Your task to perform on an android device: search for starred emails in the gmail app Image 0: 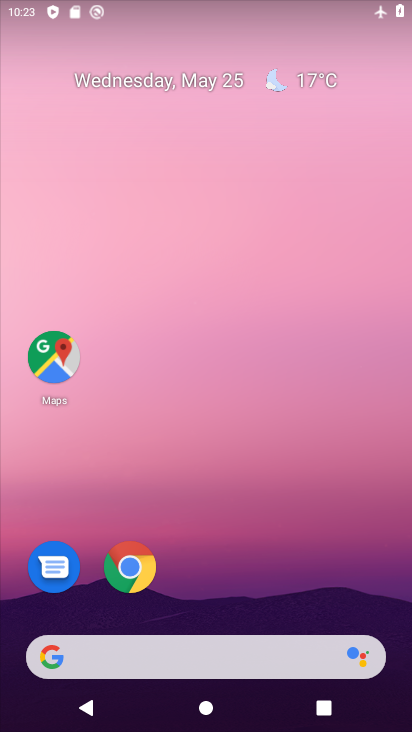
Step 0: drag from (325, 597) to (294, 42)
Your task to perform on an android device: search for starred emails in the gmail app Image 1: 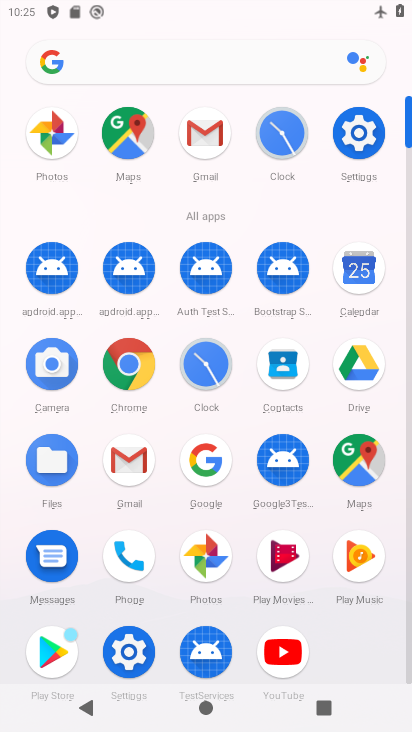
Step 1: click (141, 461)
Your task to perform on an android device: search for starred emails in the gmail app Image 2: 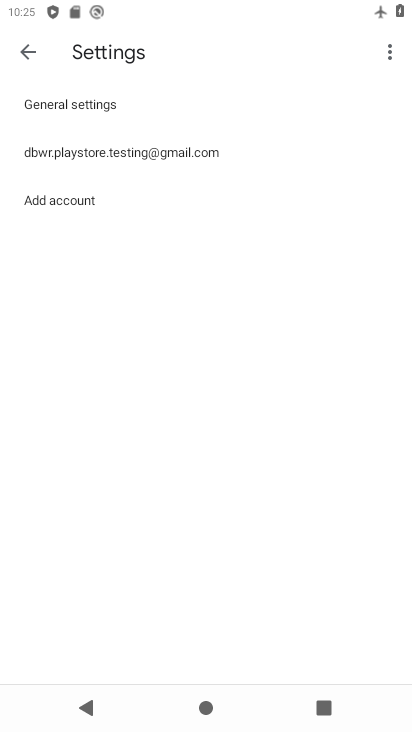
Step 2: press back button
Your task to perform on an android device: search for starred emails in the gmail app Image 3: 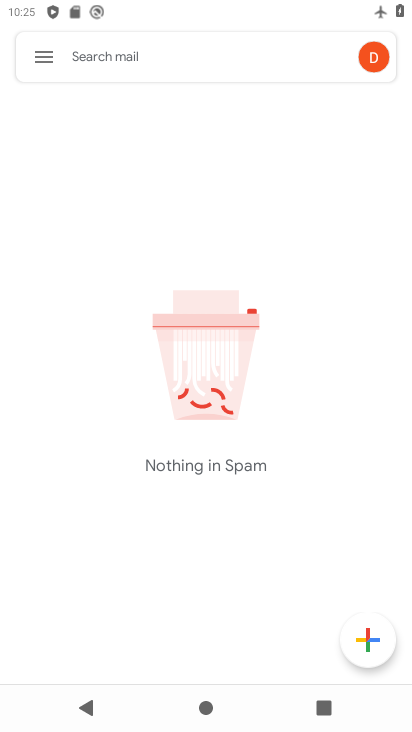
Step 3: click (54, 39)
Your task to perform on an android device: search for starred emails in the gmail app Image 4: 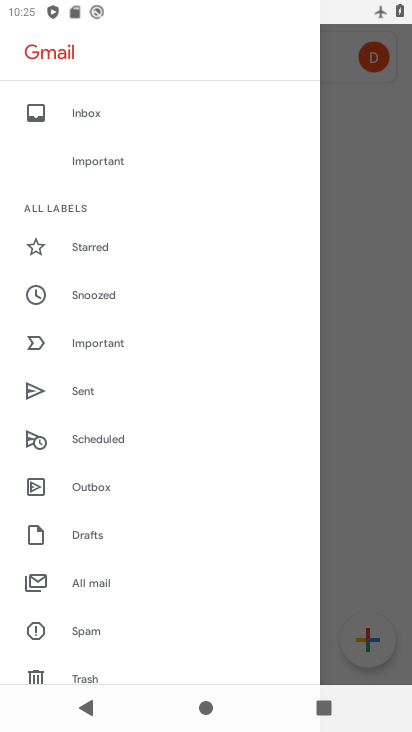
Step 4: click (112, 253)
Your task to perform on an android device: search for starred emails in the gmail app Image 5: 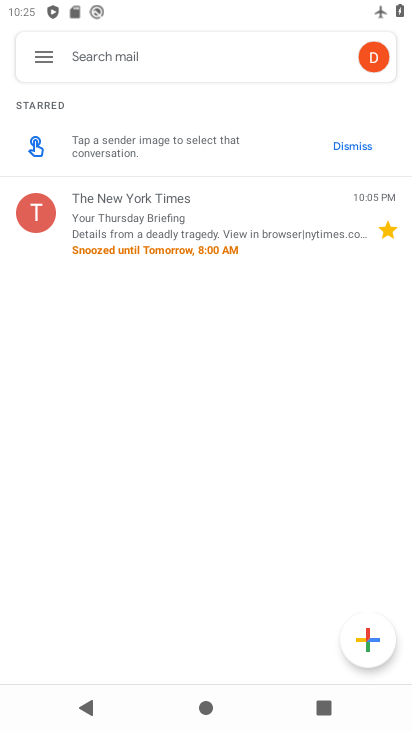
Step 5: task complete